Your task to perform on an android device: Open Wikipedia Image 0: 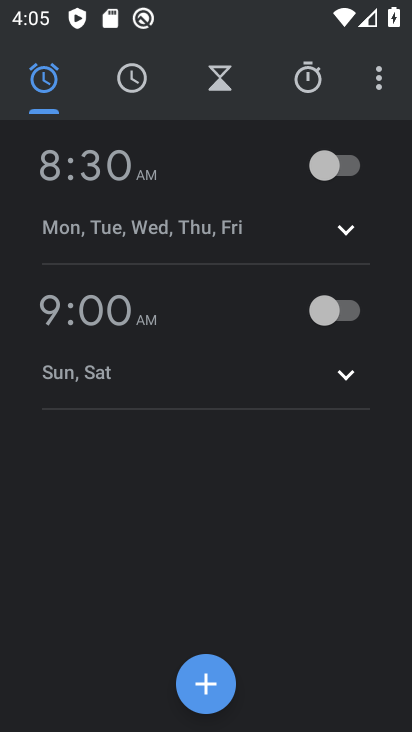
Step 0: press home button
Your task to perform on an android device: Open Wikipedia Image 1: 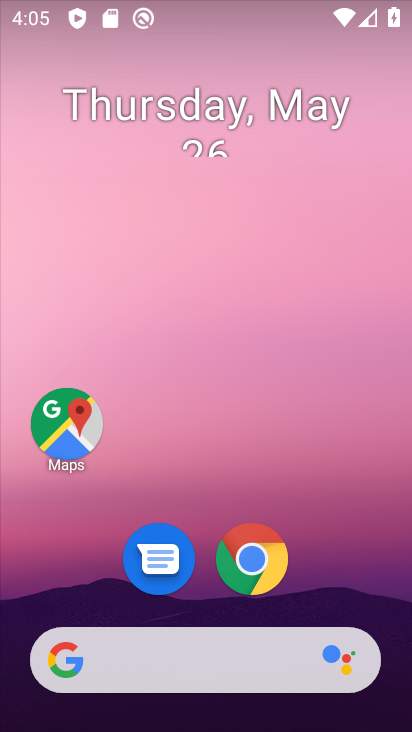
Step 1: click (246, 577)
Your task to perform on an android device: Open Wikipedia Image 2: 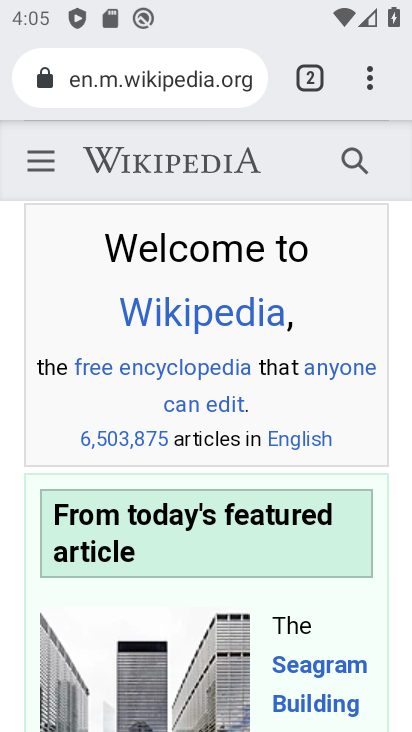
Step 2: task complete